Your task to perform on an android device: What's a good restaurant in Miami? Image 0: 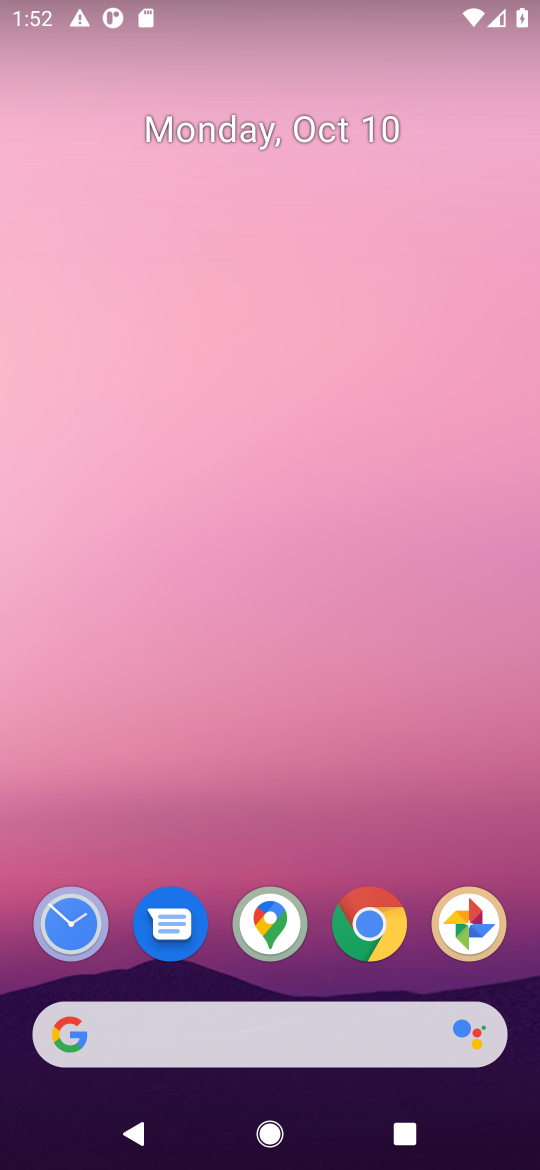
Step 0: drag from (280, 754) to (305, 50)
Your task to perform on an android device: What's a good restaurant in Miami? Image 1: 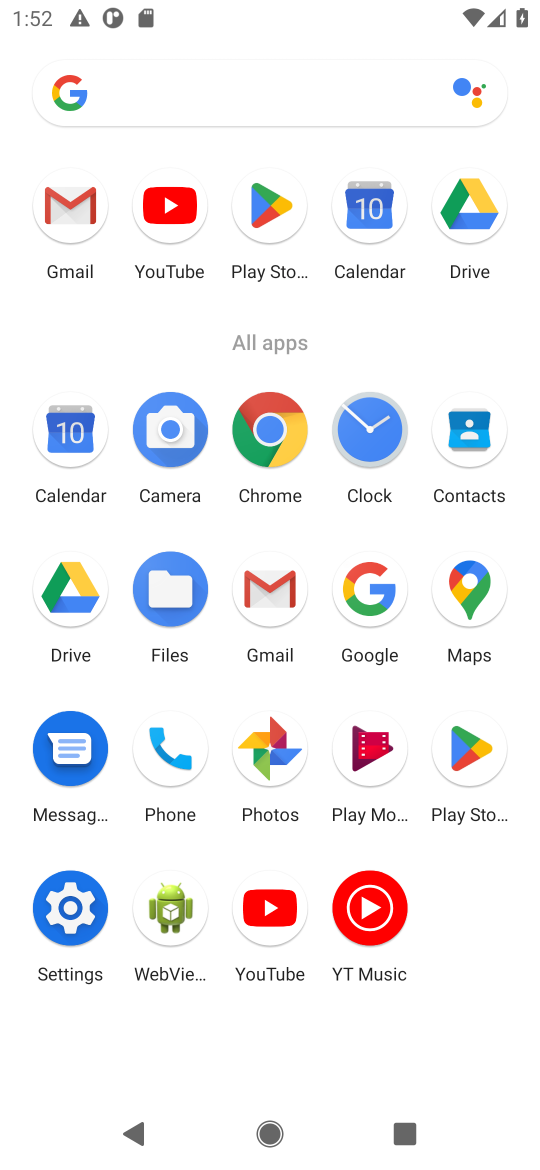
Step 1: click (247, 447)
Your task to perform on an android device: What's a good restaurant in Miami? Image 2: 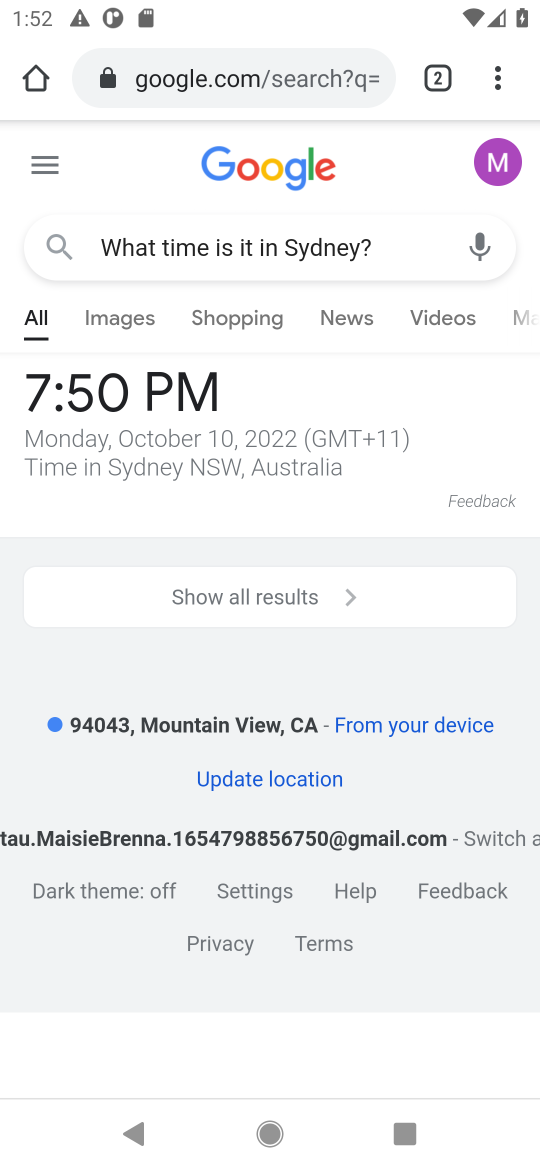
Step 2: click (393, 249)
Your task to perform on an android device: What's a good restaurant in Miami? Image 3: 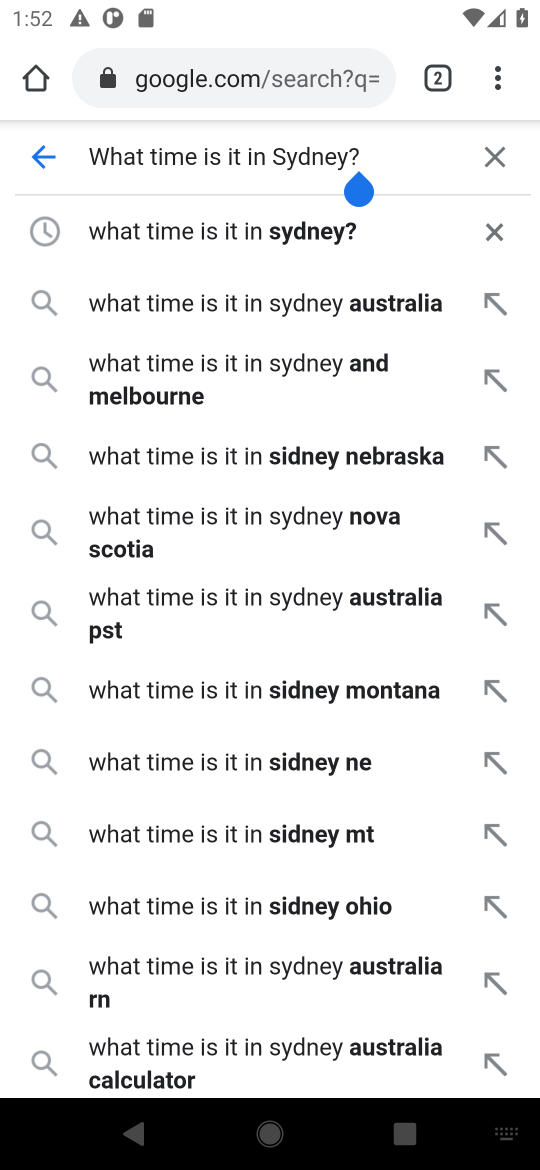
Step 3: click (298, 235)
Your task to perform on an android device: What's a good restaurant in Miami? Image 4: 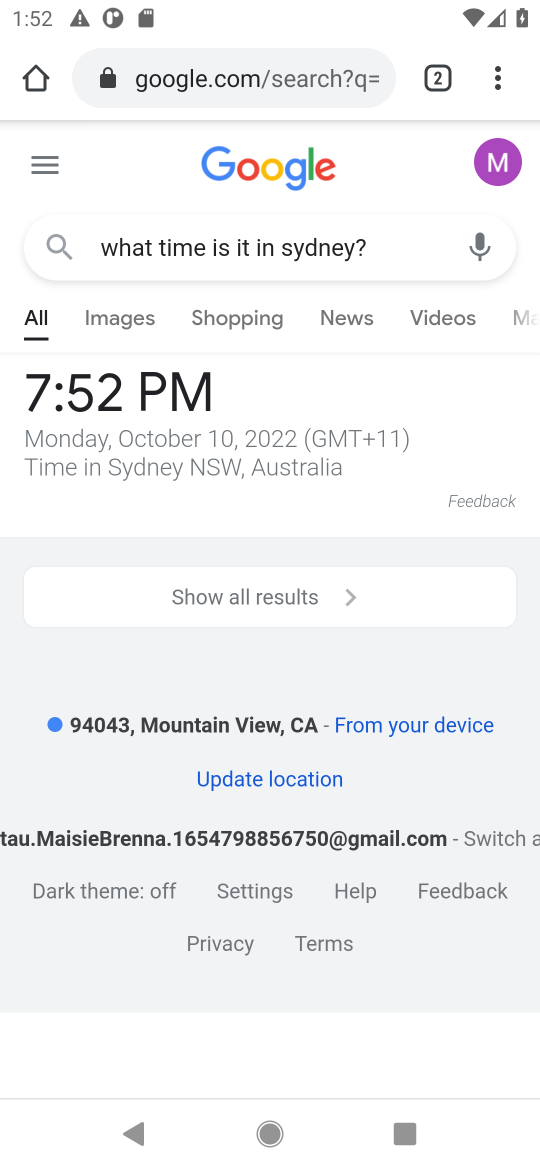
Step 4: click (320, 64)
Your task to perform on an android device: What's a good restaurant in Miami? Image 5: 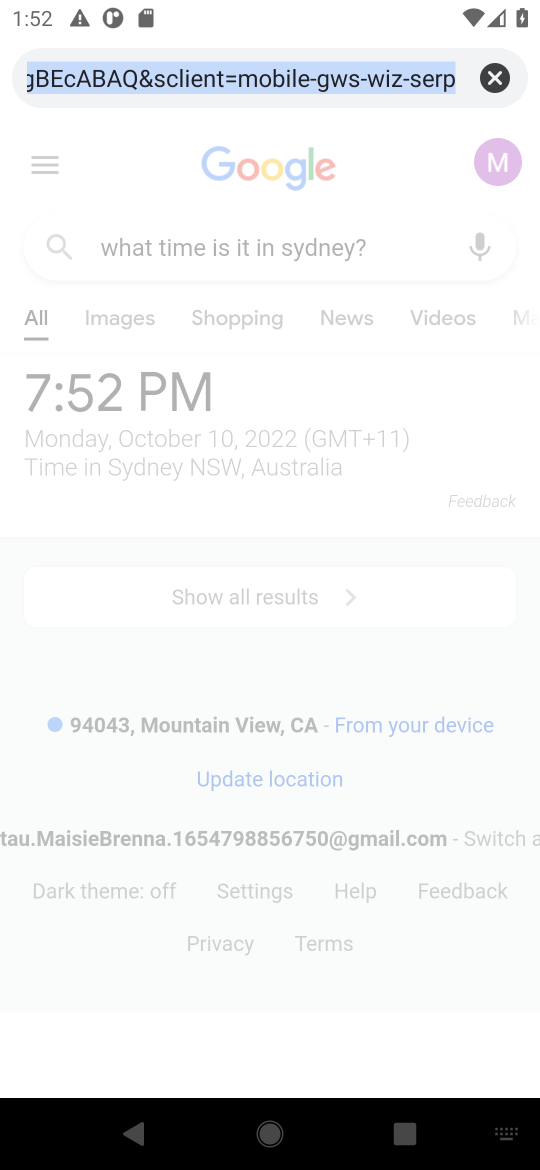
Step 5: click (491, 70)
Your task to perform on an android device: What's a good restaurant in Miami? Image 6: 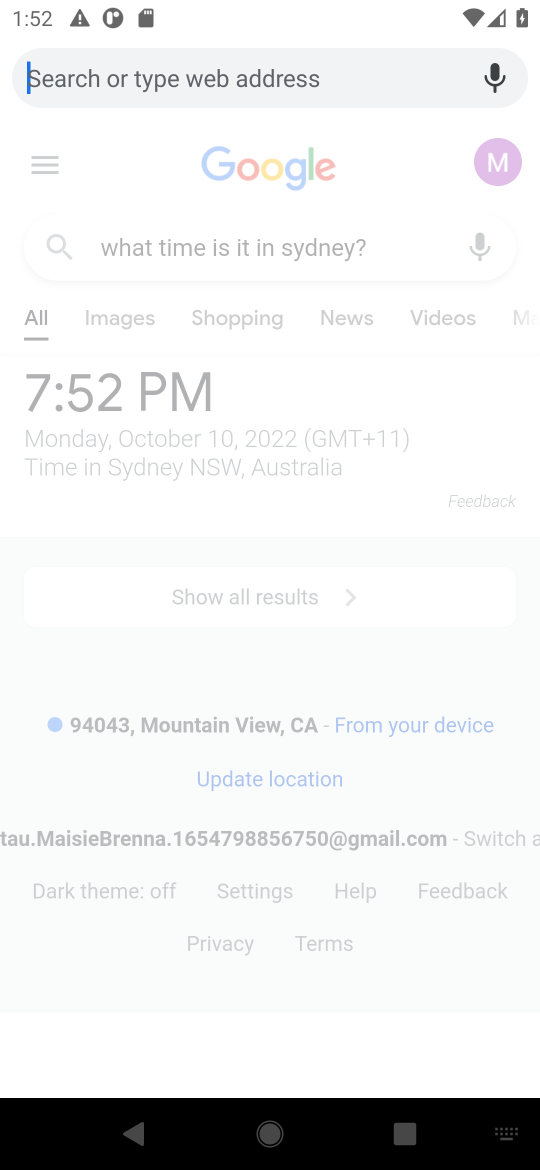
Step 6: type "What's a good restaurant in Miami?"
Your task to perform on an android device: What's a good restaurant in Miami? Image 7: 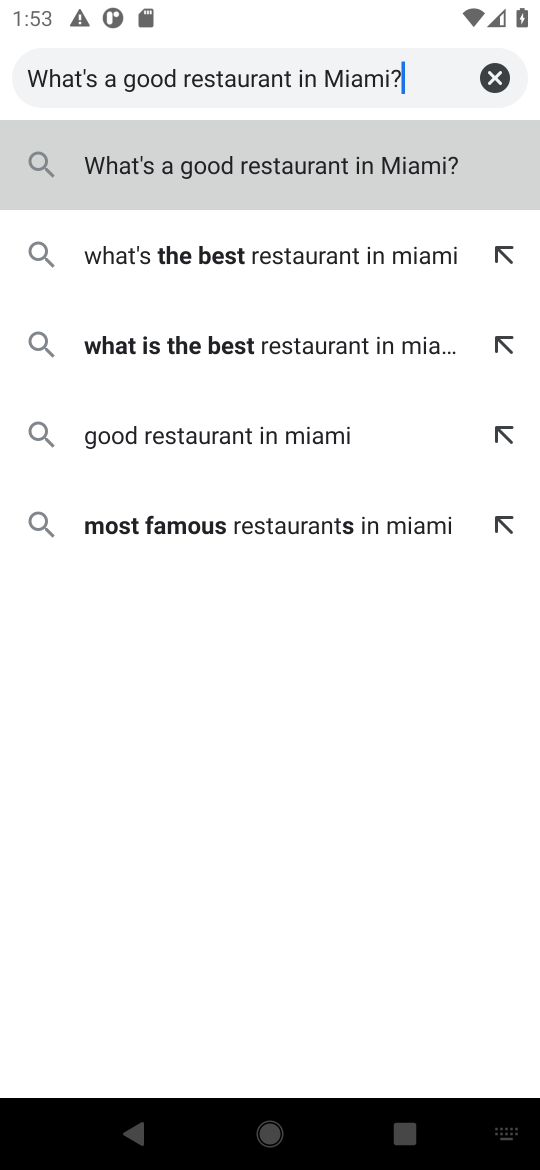
Step 7: click (331, 161)
Your task to perform on an android device: What's a good restaurant in Miami? Image 8: 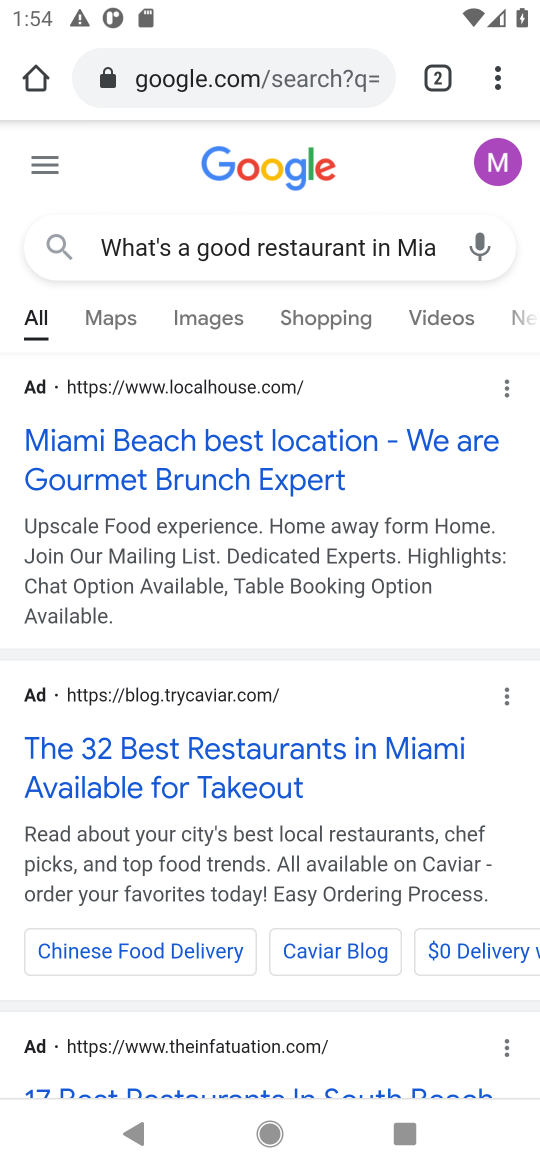
Step 8: click (163, 763)
Your task to perform on an android device: What's a good restaurant in Miami? Image 9: 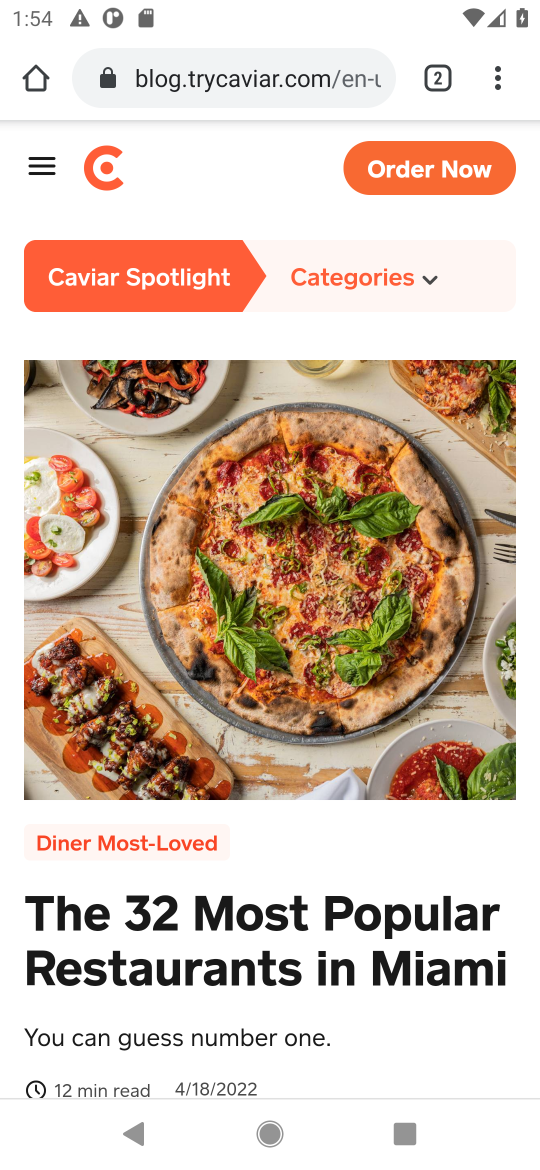
Step 9: task complete